Your task to perform on an android device: toggle wifi Image 0: 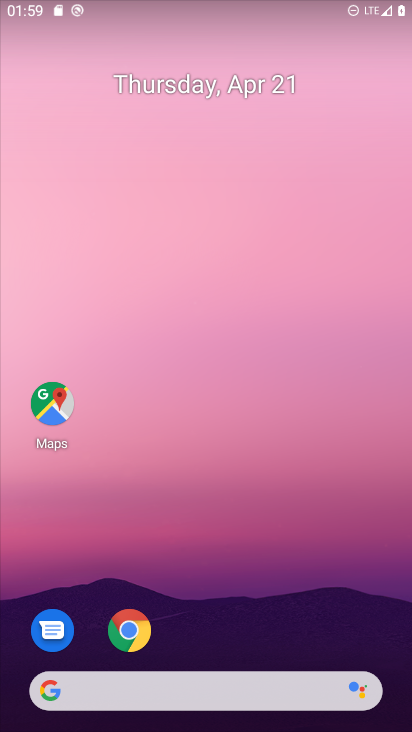
Step 0: drag from (239, 625) to (136, 132)
Your task to perform on an android device: toggle wifi Image 1: 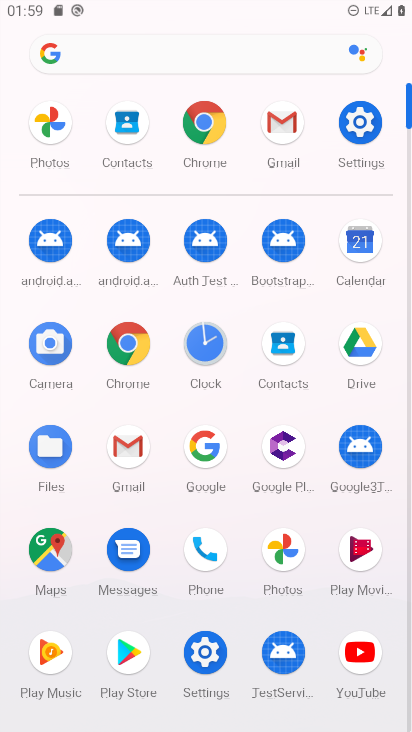
Step 1: click (367, 144)
Your task to perform on an android device: toggle wifi Image 2: 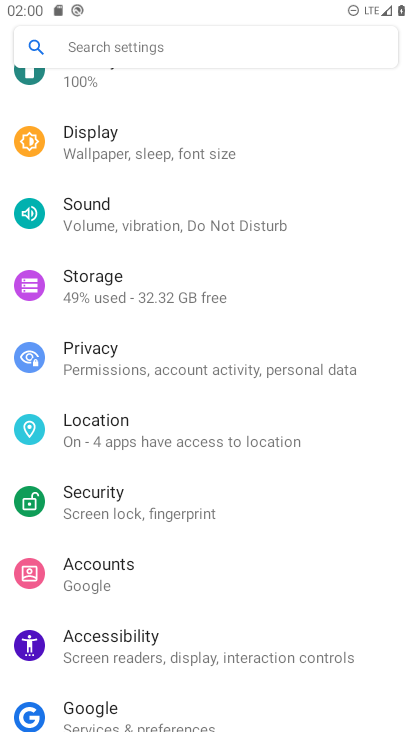
Step 2: drag from (235, 231) to (314, 454)
Your task to perform on an android device: toggle wifi Image 3: 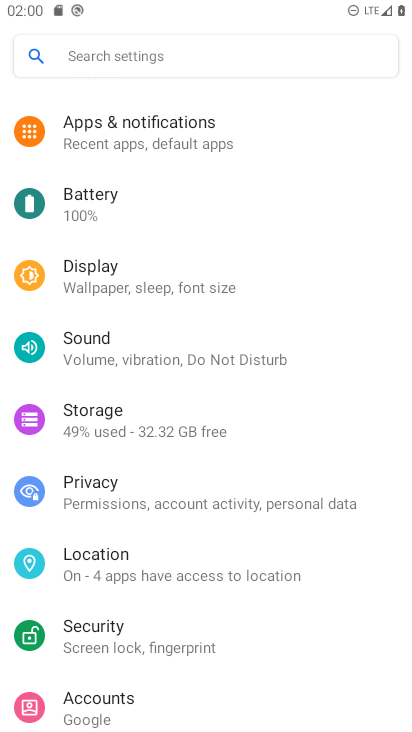
Step 3: drag from (208, 146) to (115, 709)
Your task to perform on an android device: toggle wifi Image 4: 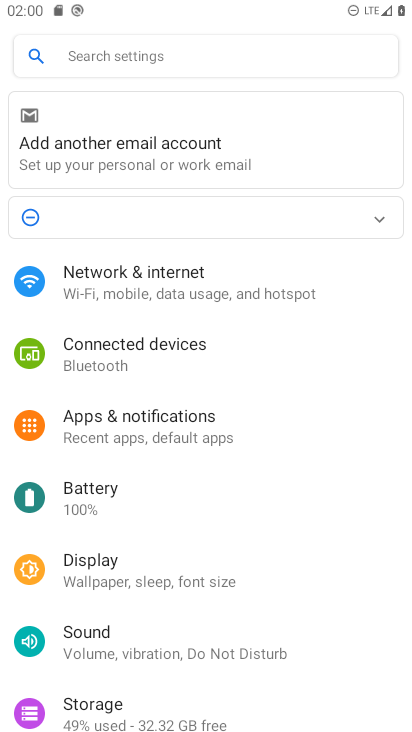
Step 4: click (204, 288)
Your task to perform on an android device: toggle wifi Image 5: 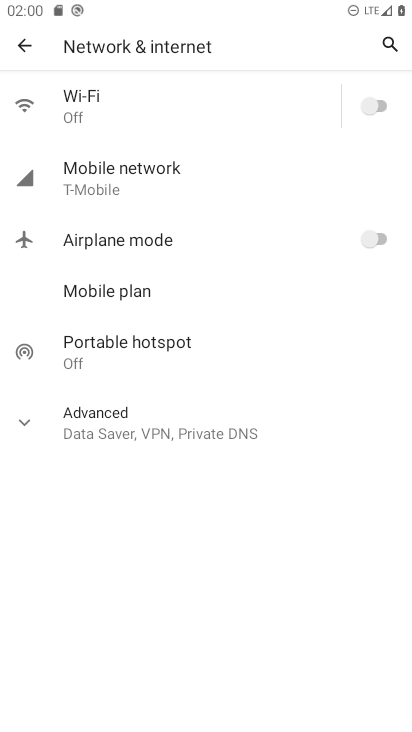
Step 5: click (367, 107)
Your task to perform on an android device: toggle wifi Image 6: 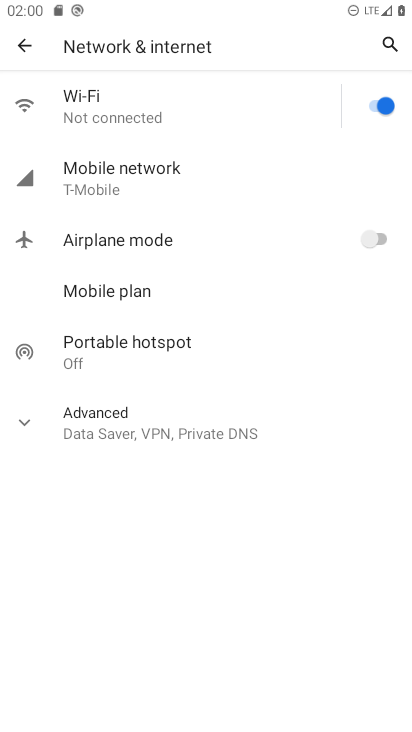
Step 6: task complete